Your task to perform on an android device: uninstall "Spotify" Image 0: 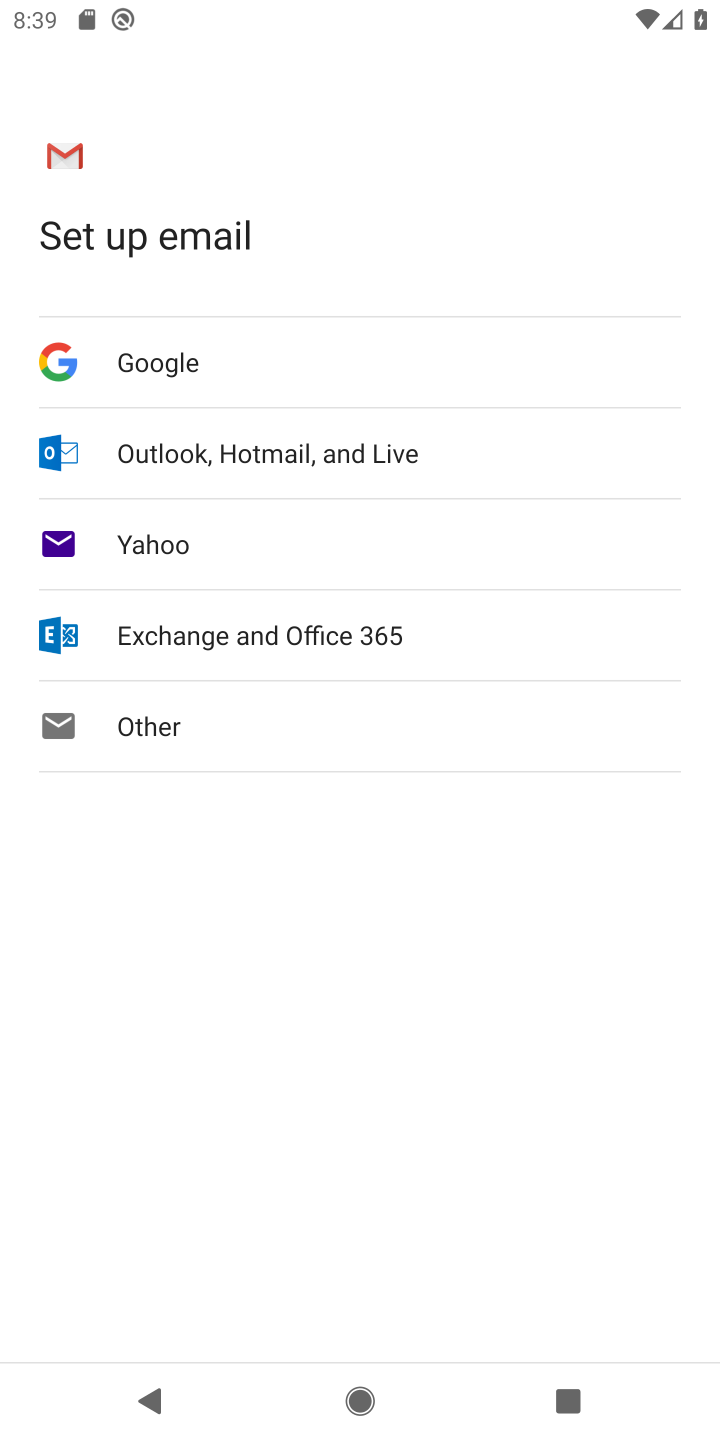
Step 0: click (573, 82)
Your task to perform on an android device: uninstall "Spotify" Image 1: 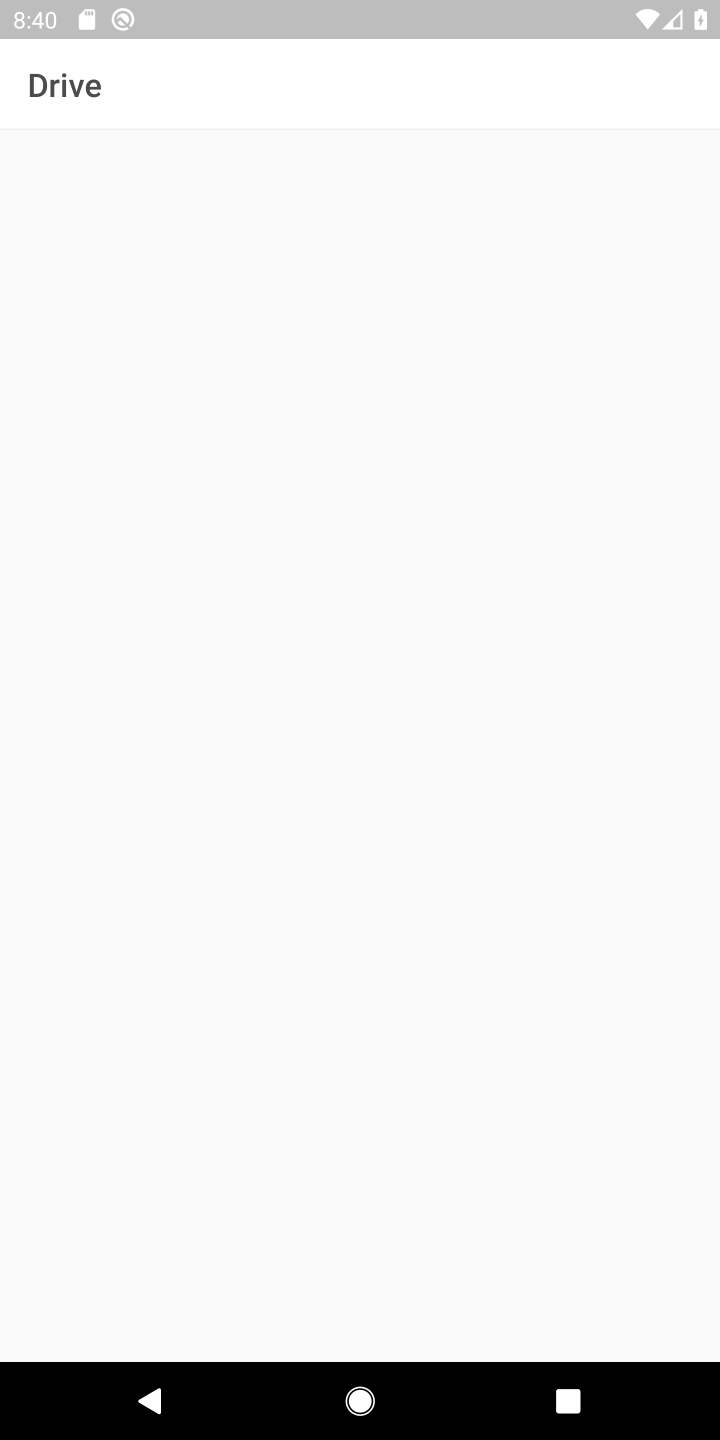
Step 1: press back button
Your task to perform on an android device: uninstall "Spotify" Image 2: 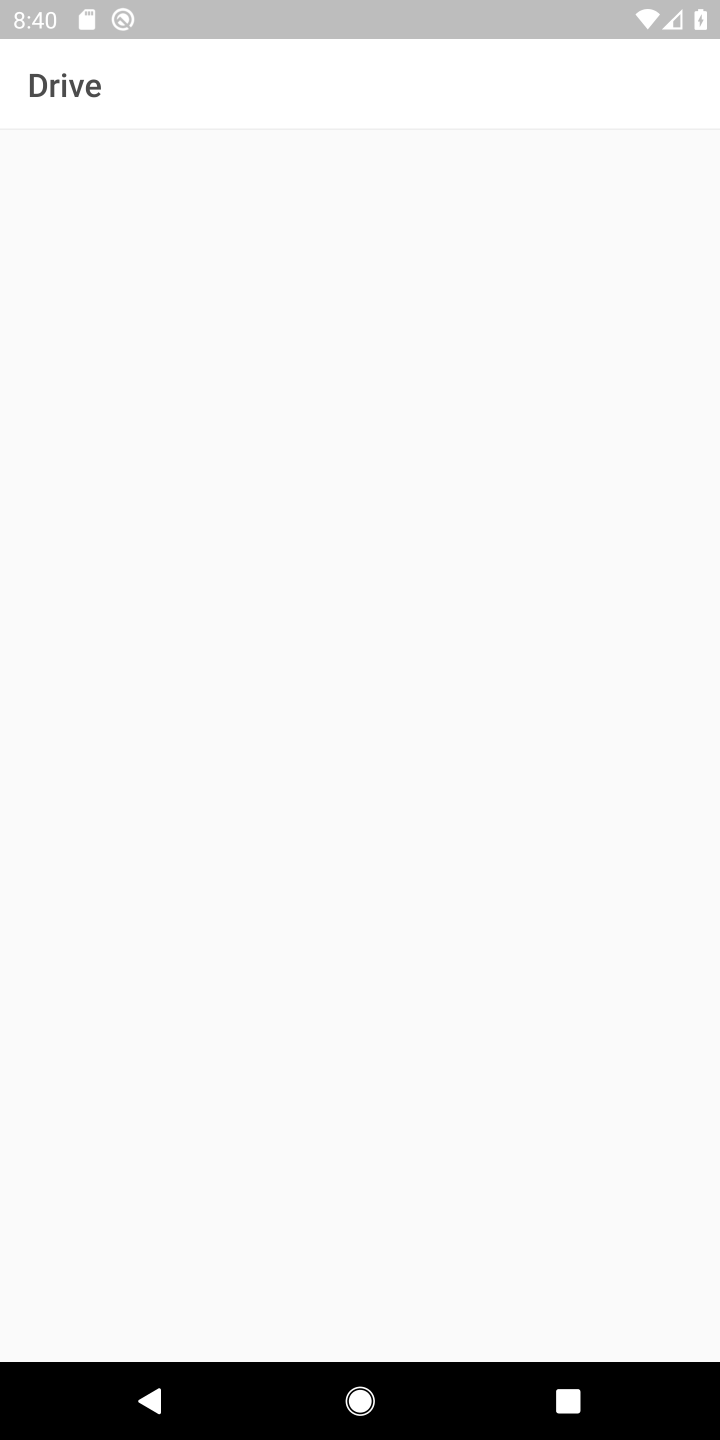
Step 2: press home button
Your task to perform on an android device: uninstall "Spotify" Image 3: 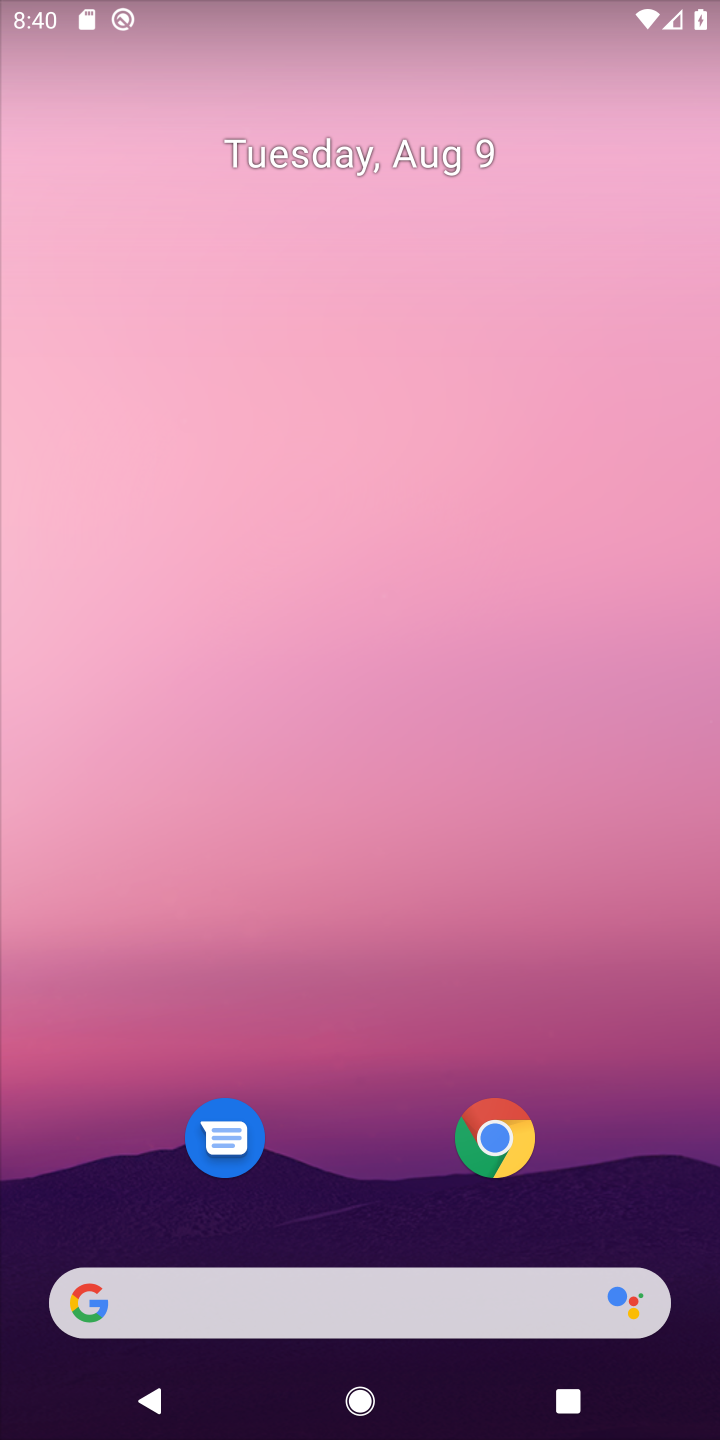
Step 3: drag from (382, 990) to (420, 337)
Your task to perform on an android device: uninstall "Spotify" Image 4: 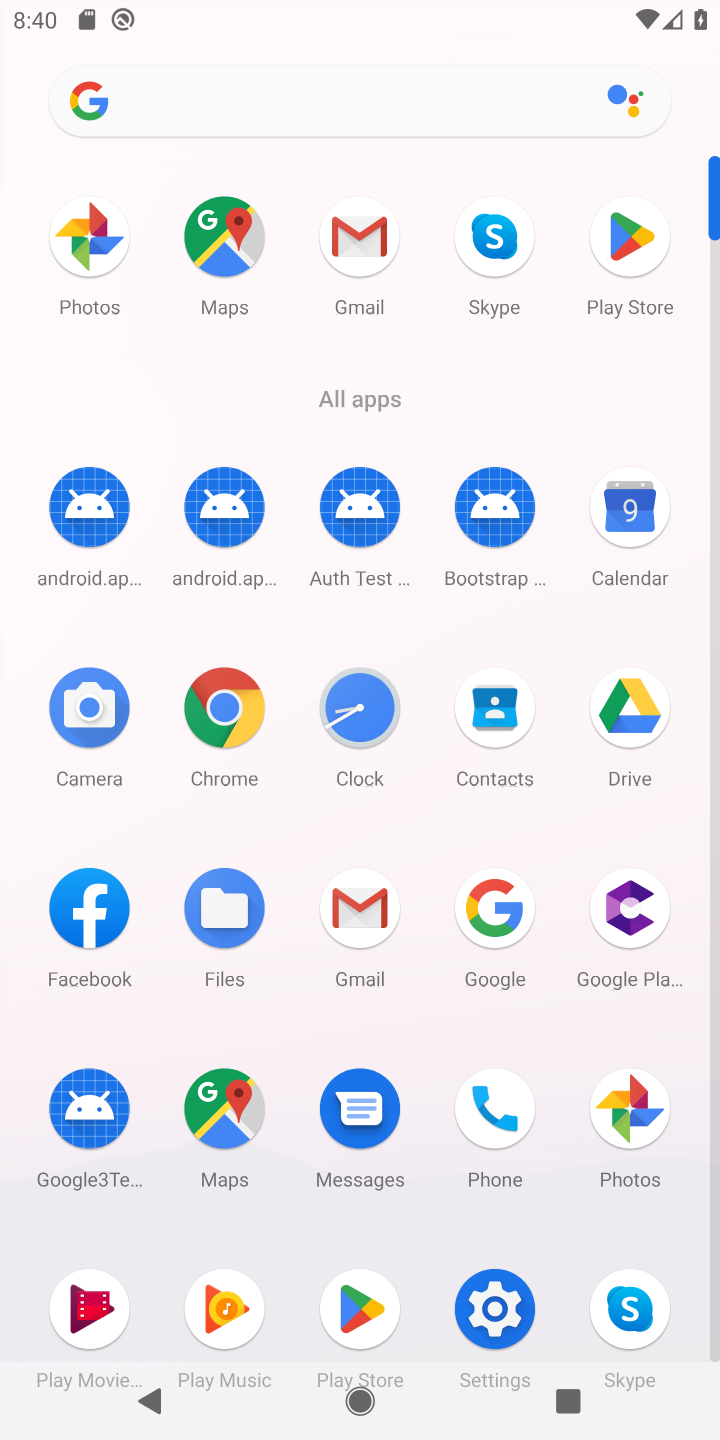
Step 4: click (646, 252)
Your task to perform on an android device: uninstall "Spotify" Image 5: 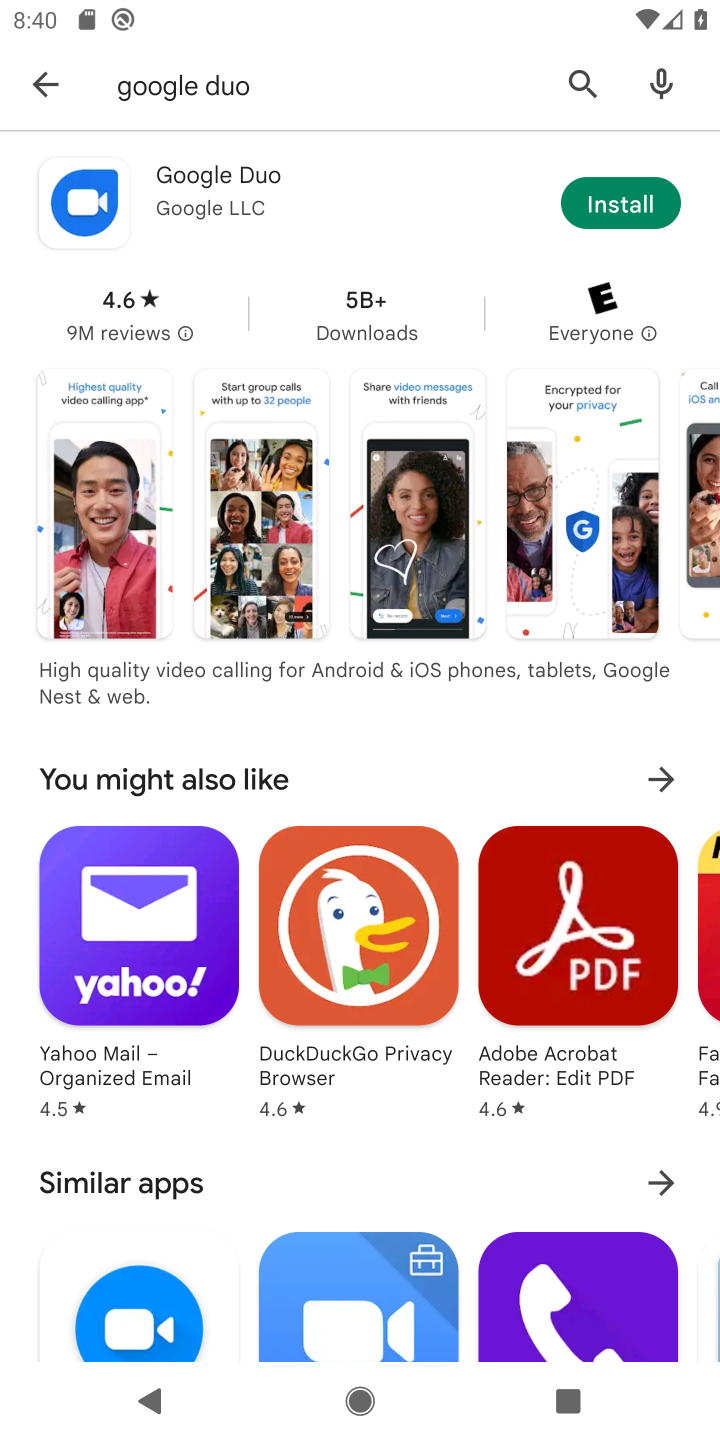
Step 5: task complete